Your task to perform on an android device: Go to Android settings Image 0: 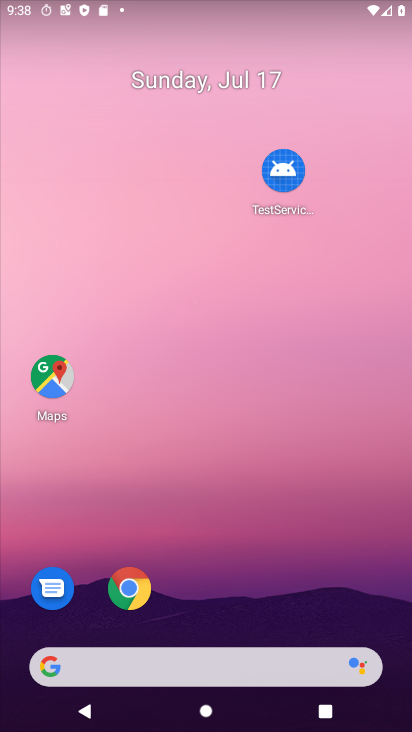
Step 0: drag from (196, 688) to (240, 266)
Your task to perform on an android device: Go to Android settings Image 1: 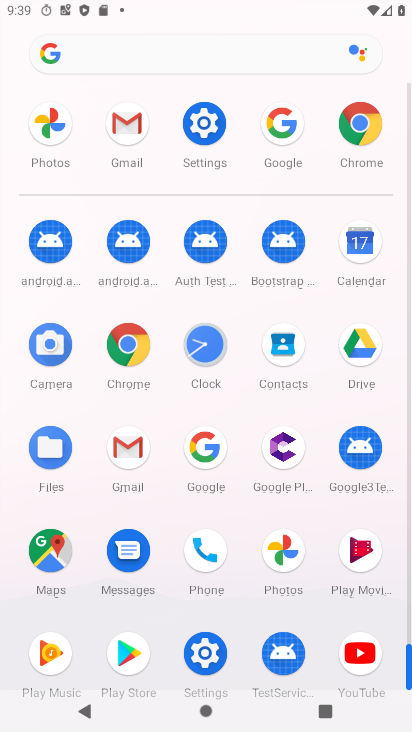
Step 1: click (213, 125)
Your task to perform on an android device: Go to Android settings Image 2: 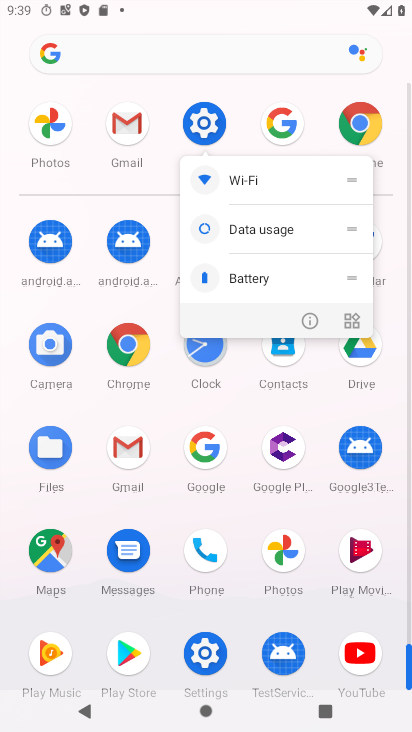
Step 2: click (208, 129)
Your task to perform on an android device: Go to Android settings Image 3: 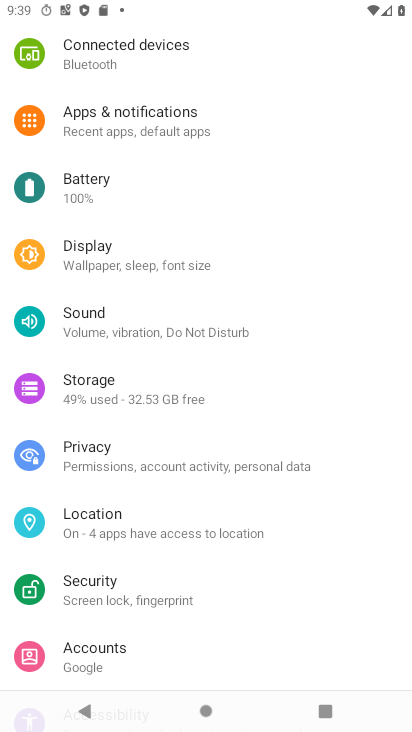
Step 3: drag from (141, 536) to (226, 206)
Your task to perform on an android device: Go to Android settings Image 4: 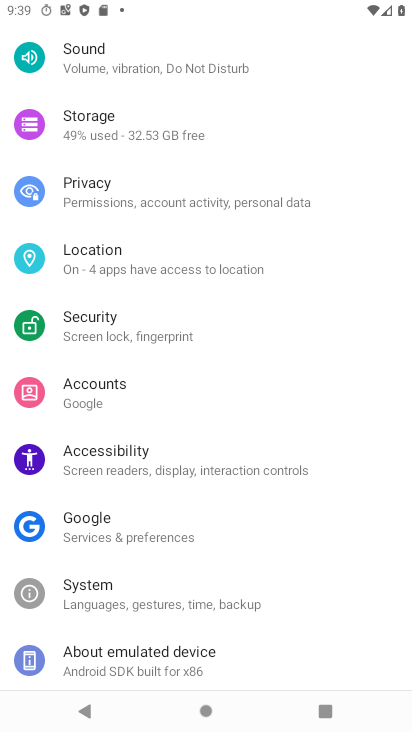
Step 4: drag from (197, 566) to (273, 63)
Your task to perform on an android device: Go to Android settings Image 5: 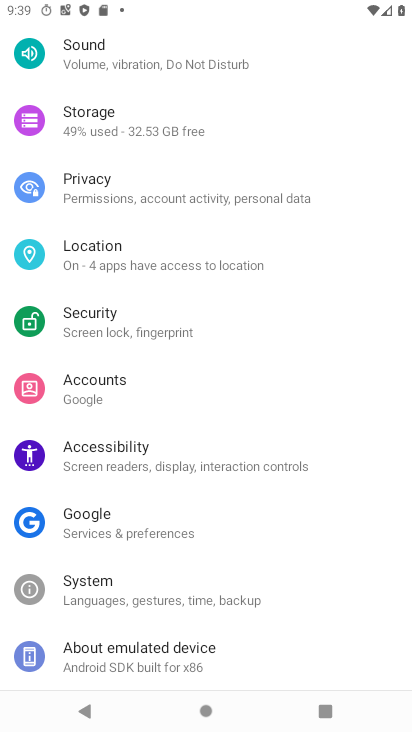
Step 5: click (242, 654)
Your task to perform on an android device: Go to Android settings Image 6: 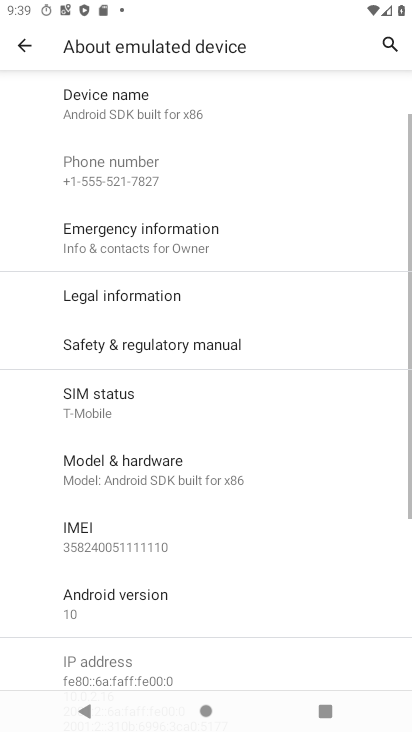
Step 6: click (137, 601)
Your task to perform on an android device: Go to Android settings Image 7: 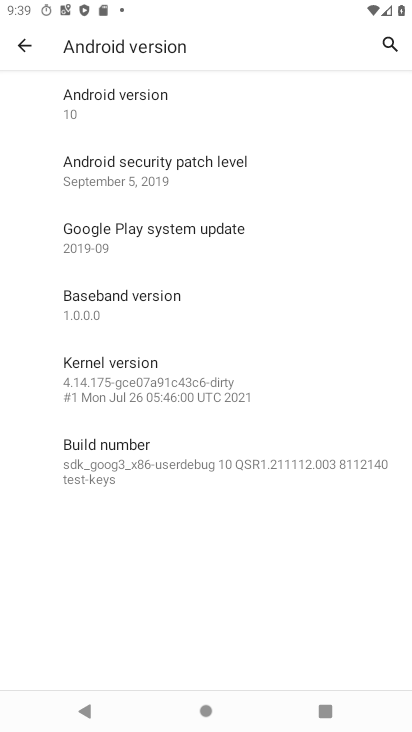
Step 7: click (160, 91)
Your task to perform on an android device: Go to Android settings Image 8: 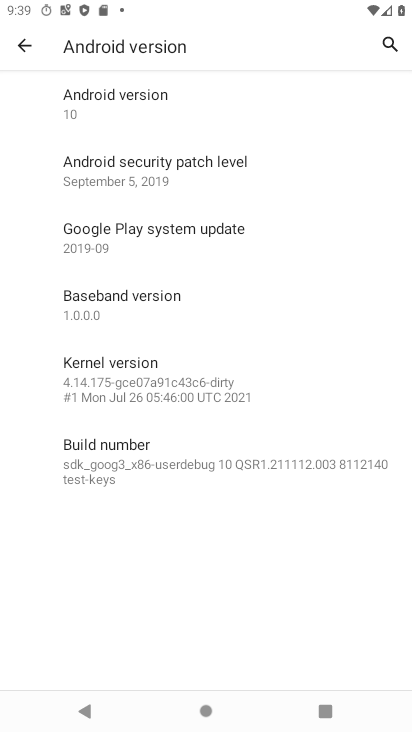
Step 8: task complete